Your task to perform on an android device: open device folders in google photos Image 0: 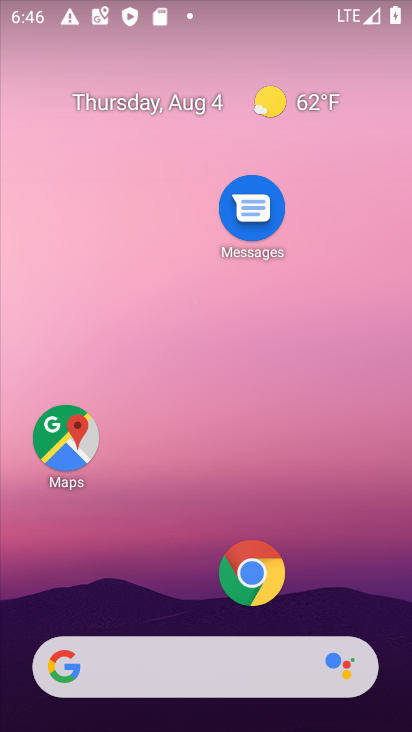
Step 0: press home button
Your task to perform on an android device: open device folders in google photos Image 1: 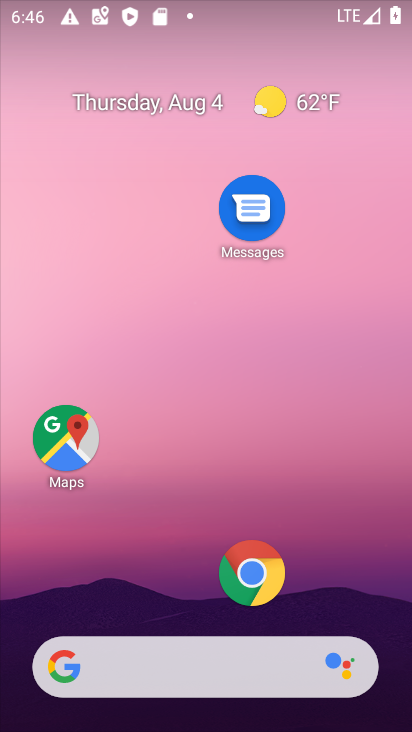
Step 1: drag from (210, 616) to (296, 78)
Your task to perform on an android device: open device folders in google photos Image 2: 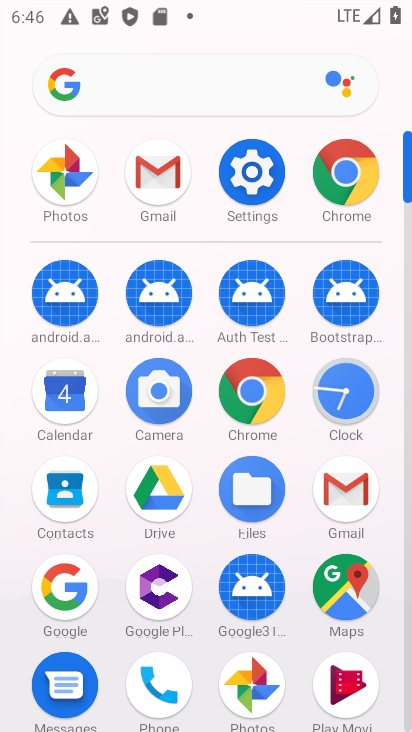
Step 2: click (250, 684)
Your task to perform on an android device: open device folders in google photos Image 3: 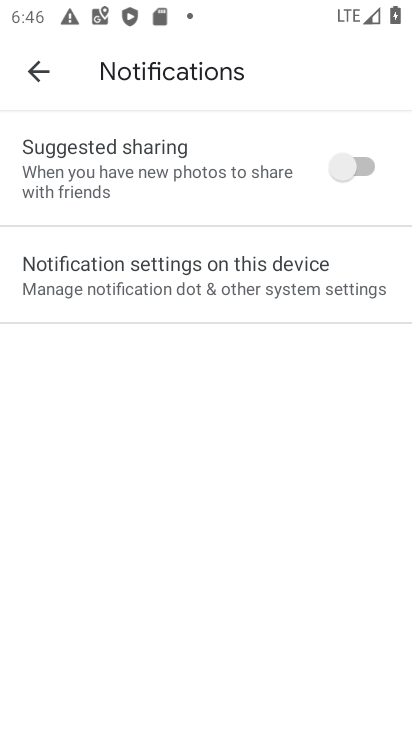
Step 3: click (45, 69)
Your task to perform on an android device: open device folders in google photos Image 4: 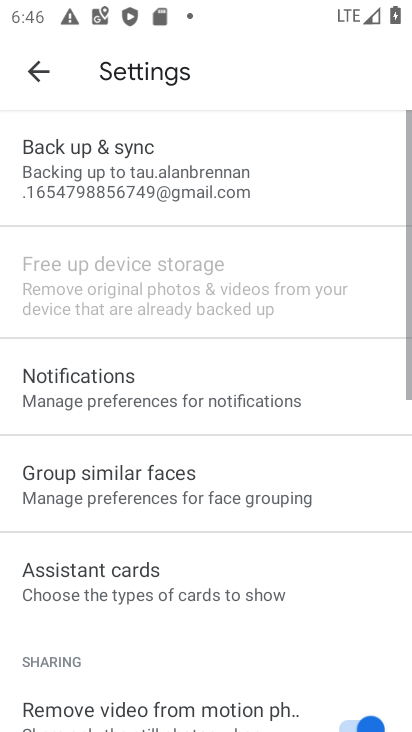
Step 4: click (45, 69)
Your task to perform on an android device: open device folders in google photos Image 5: 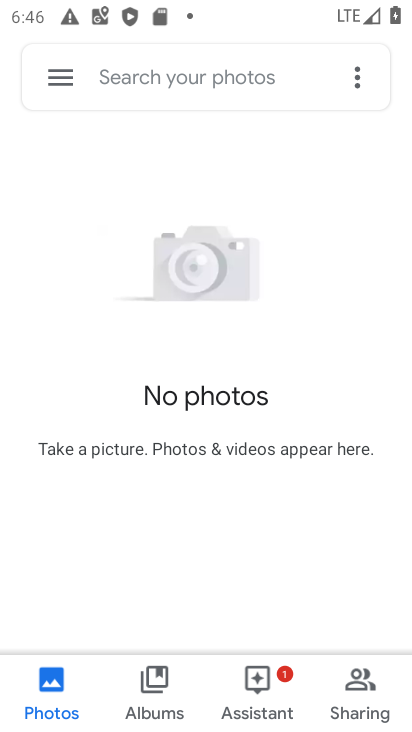
Step 5: click (50, 74)
Your task to perform on an android device: open device folders in google photos Image 6: 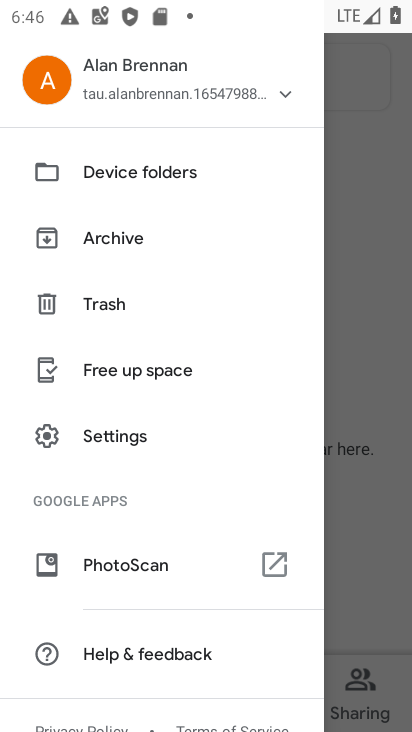
Step 6: click (142, 178)
Your task to perform on an android device: open device folders in google photos Image 7: 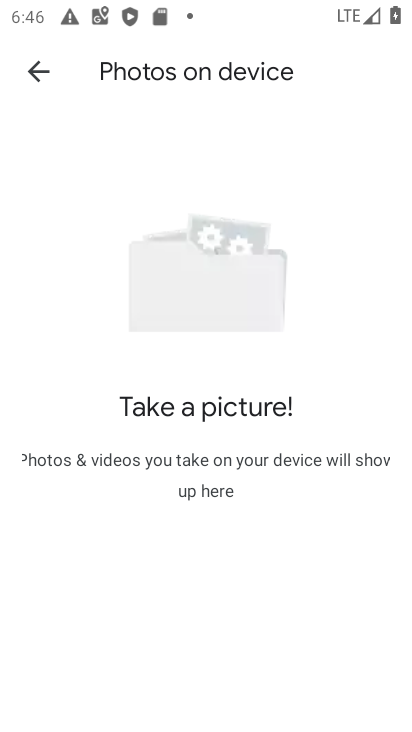
Step 7: task complete